Your task to perform on an android device: find photos in the google photos app Image 0: 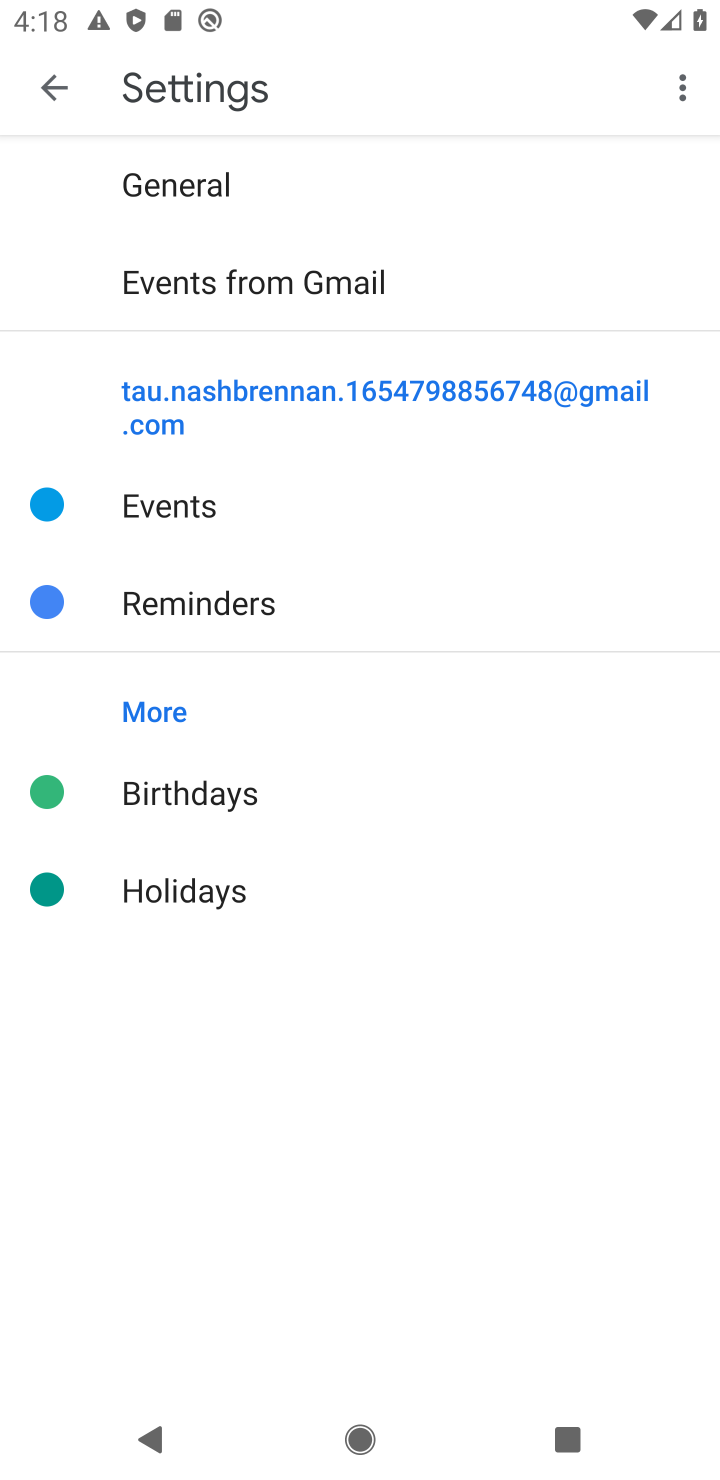
Step 0: press home button
Your task to perform on an android device: find photos in the google photos app Image 1: 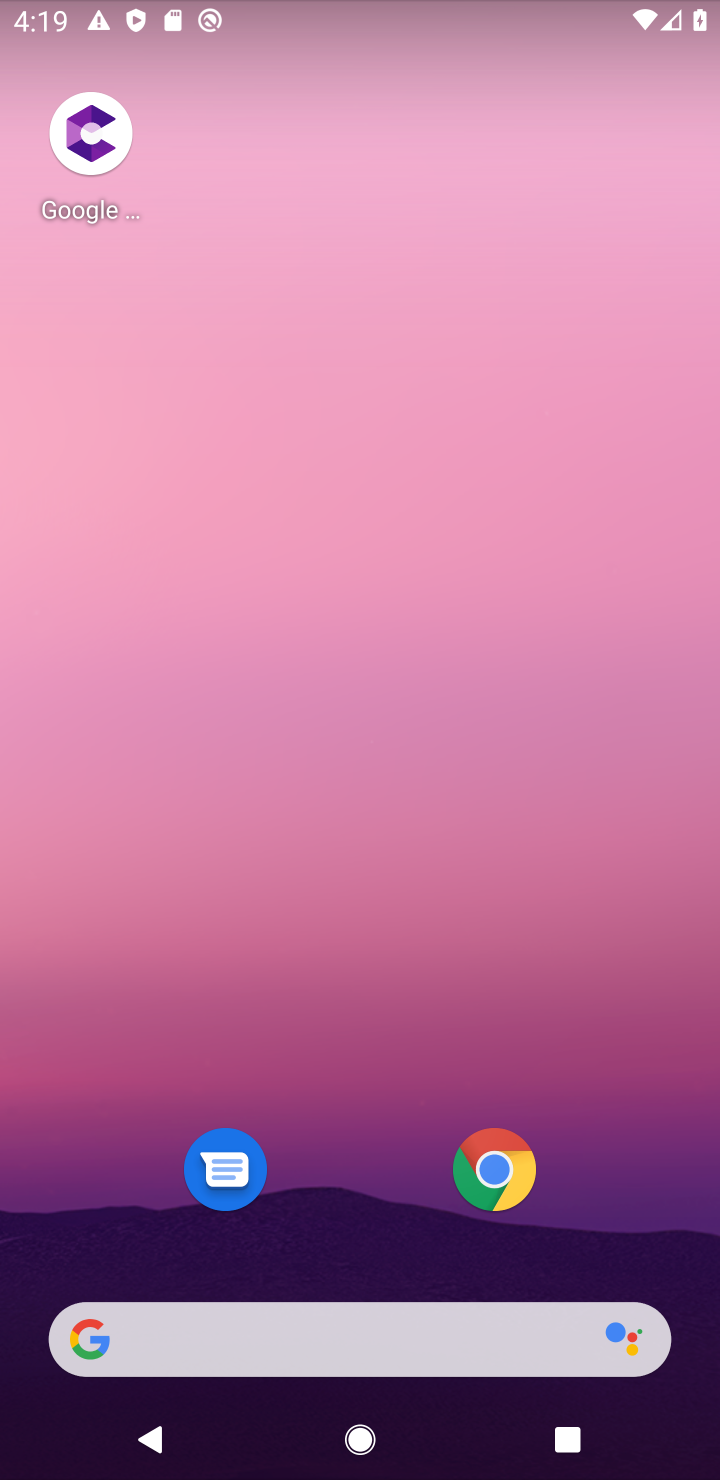
Step 1: drag from (332, 997) to (315, 139)
Your task to perform on an android device: find photos in the google photos app Image 2: 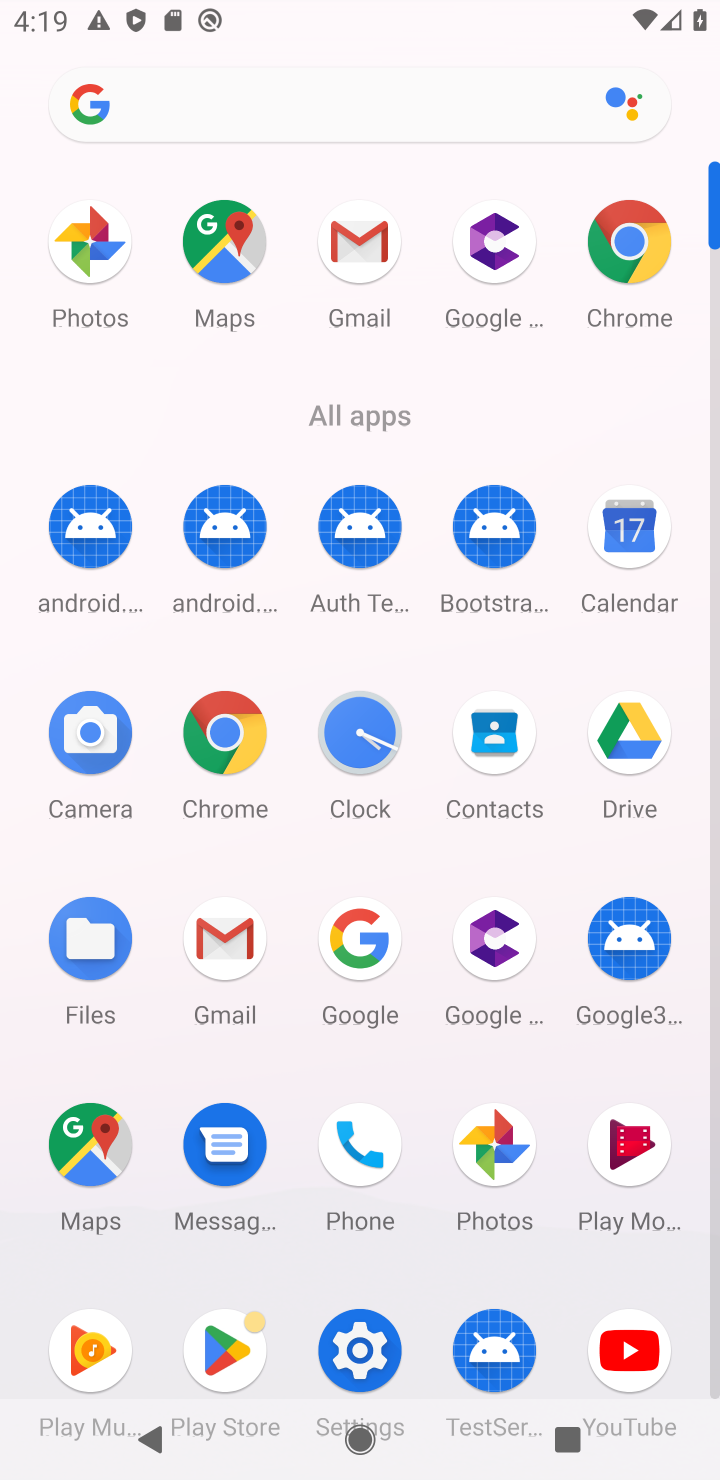
Step 2: click (500, 1133)
Your task to perform on an android device: find photos in the google photos app Image 3: 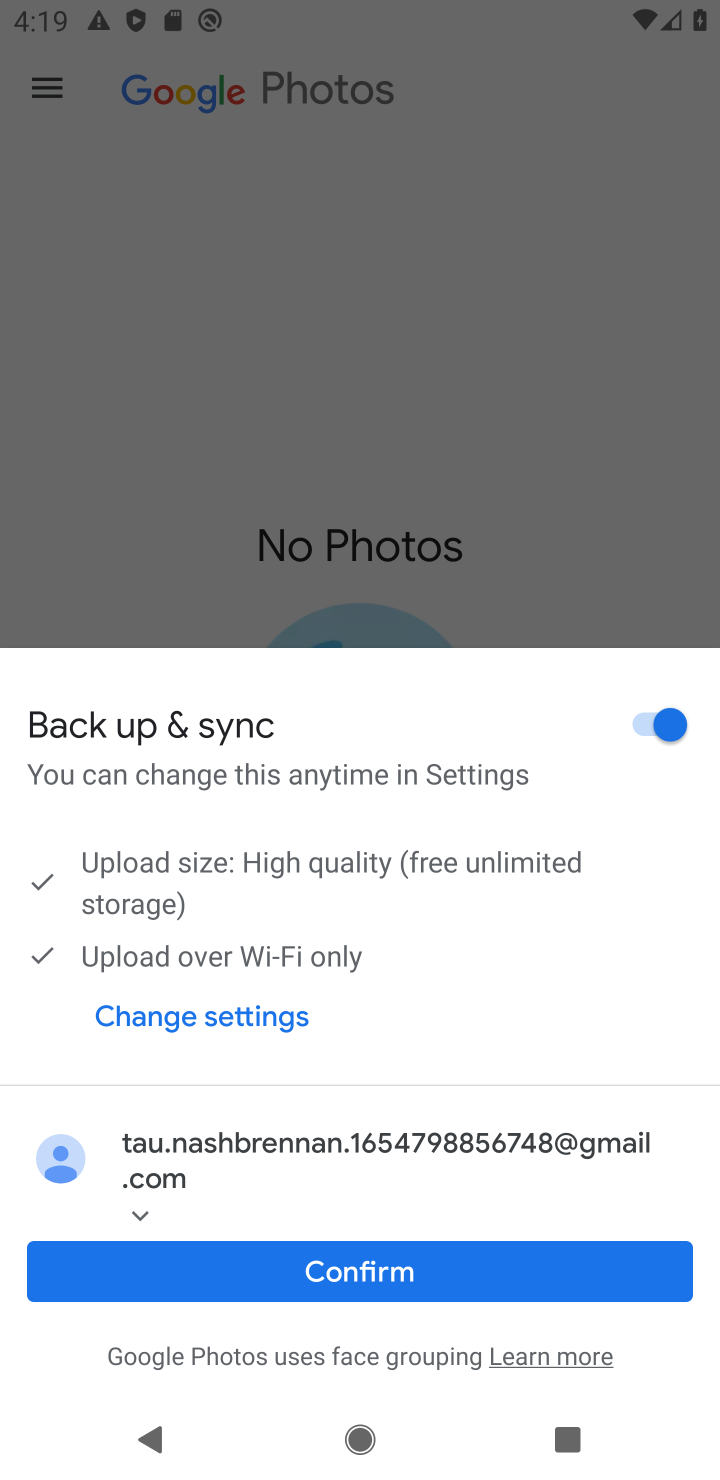
Step 3: click (327, 1267)
Your task to perform on an android device: find photos in the google photos app Image 4: 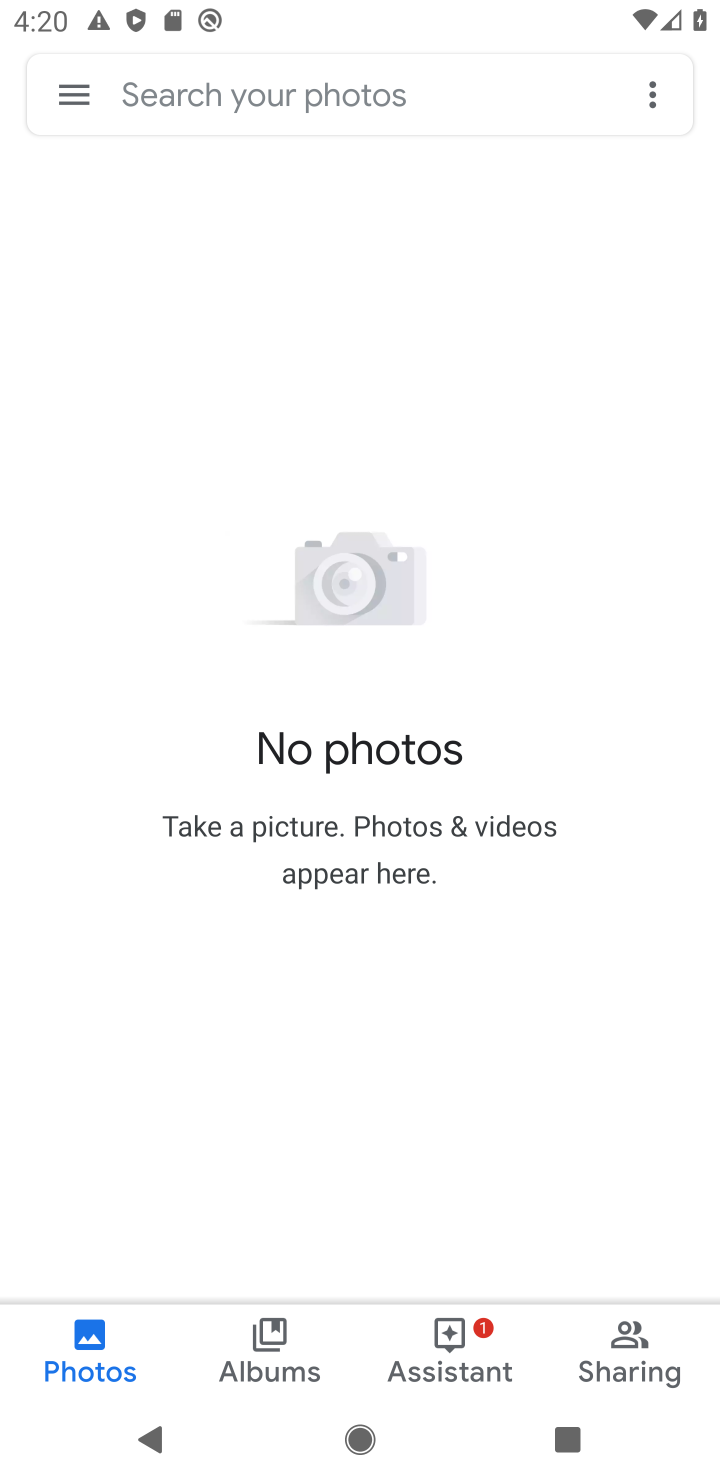
Step 4: task complete